Your task to perform on an android device: check data usage Image 0: 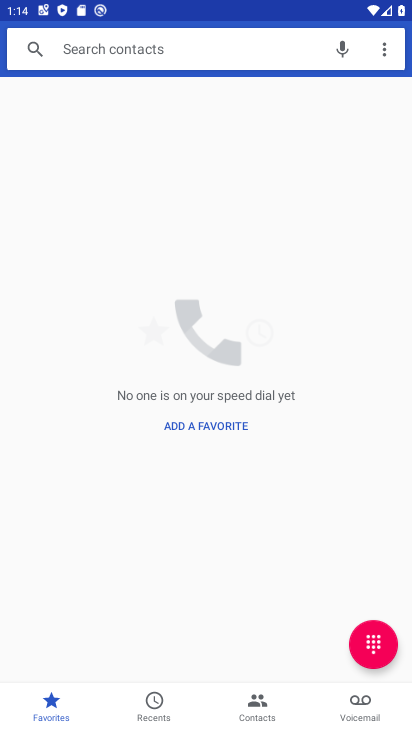
Step 0: press home button
Your task to perform on an android device: check data usage Image 1: 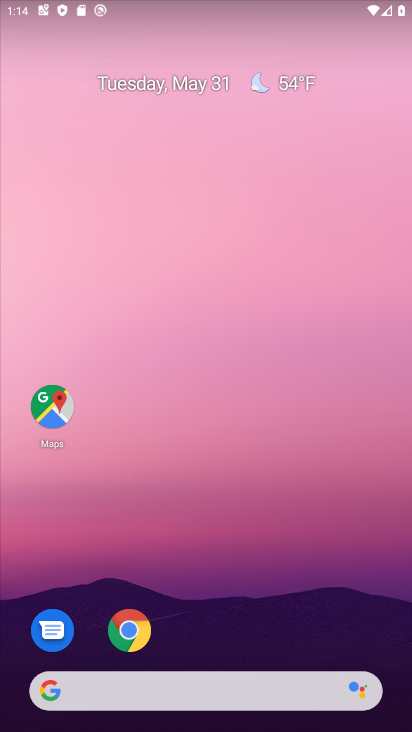
Step 1: drag from (218, 634) to (272, 36)
Your task to perform on an android device: check data usage Image 2: 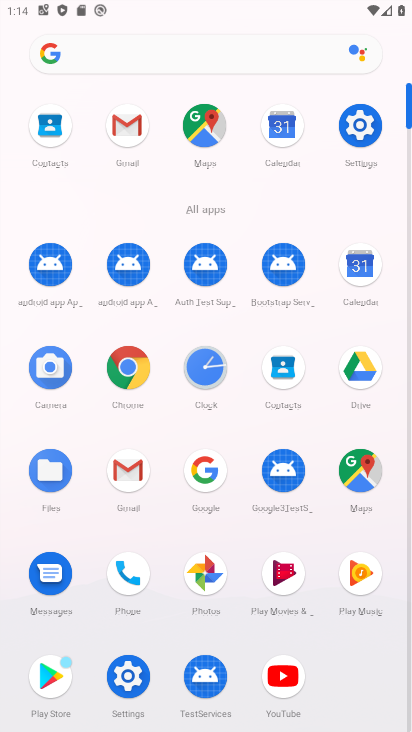
Step 2: click (356, 127)
Your task to perform on an android device: check data usage Image 3: 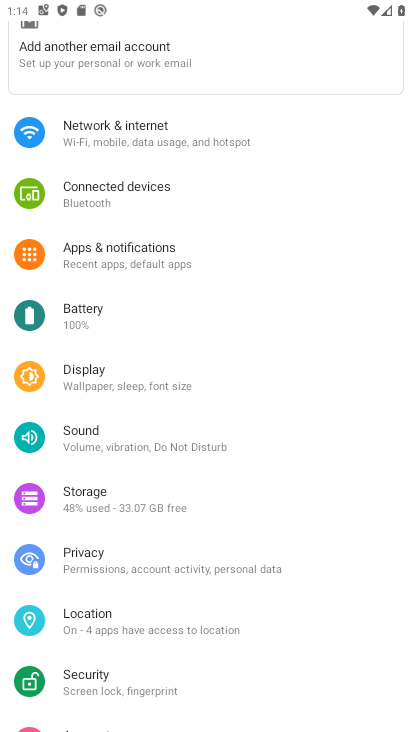
Step 3: click (143, 134)
Your task to perform on an android device: check data usage Image 4: 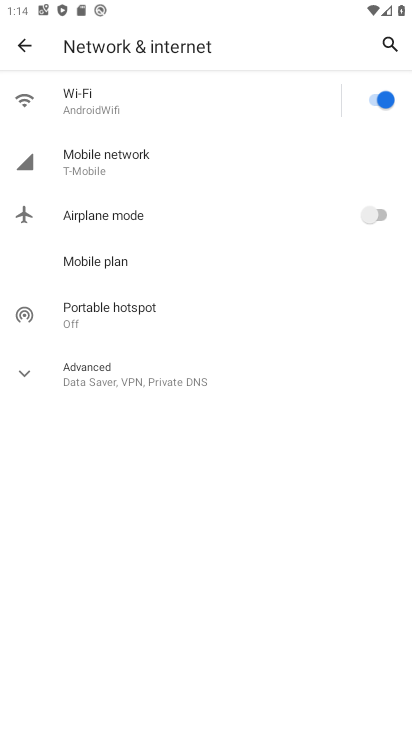
Step 4: click (178, 155)
Your task to perform on an android device: check data usage Image 5: 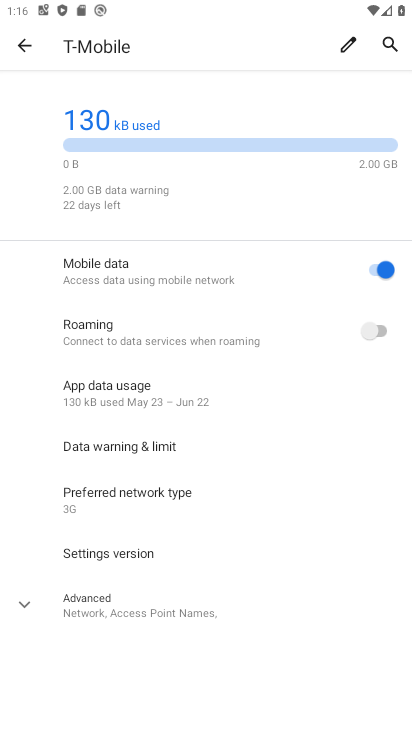
Step 5: task complete